Your task to perform on an android device: Go to privacy settings Image 0: 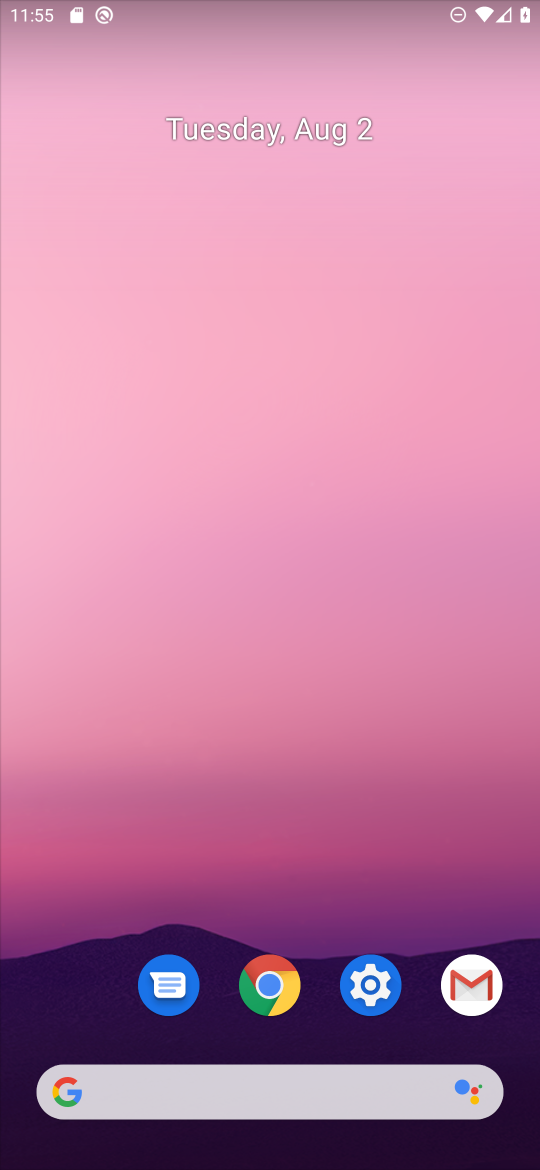
Step 0: click (353, 987)
Your task to perform on an android device: Go to privacy settings Image 1: 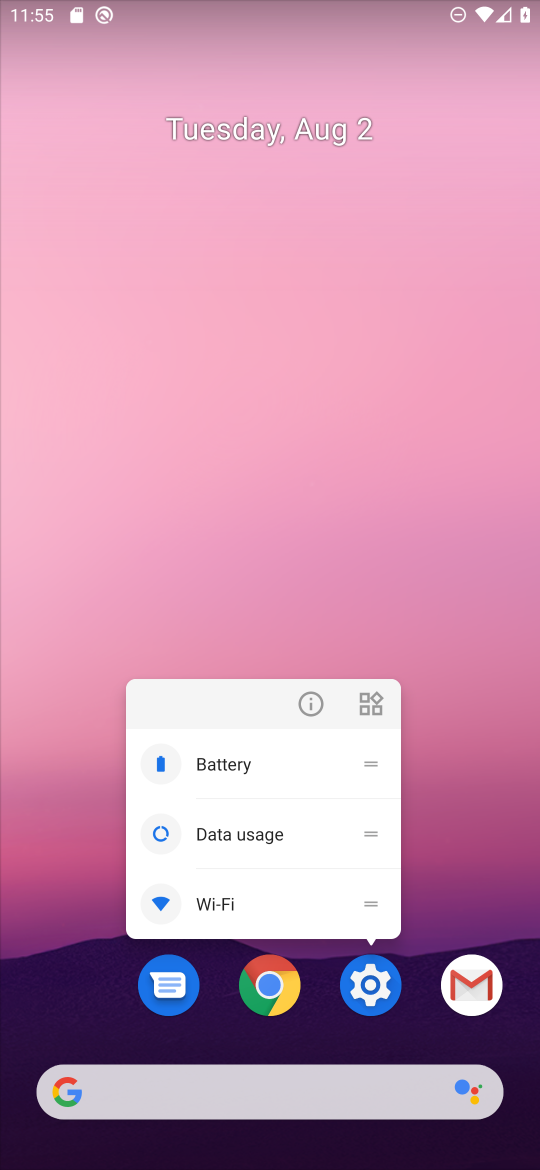
Step 1: click (365, 1008)
Your task to perform on an android device: Go to privacy settings Image 2: 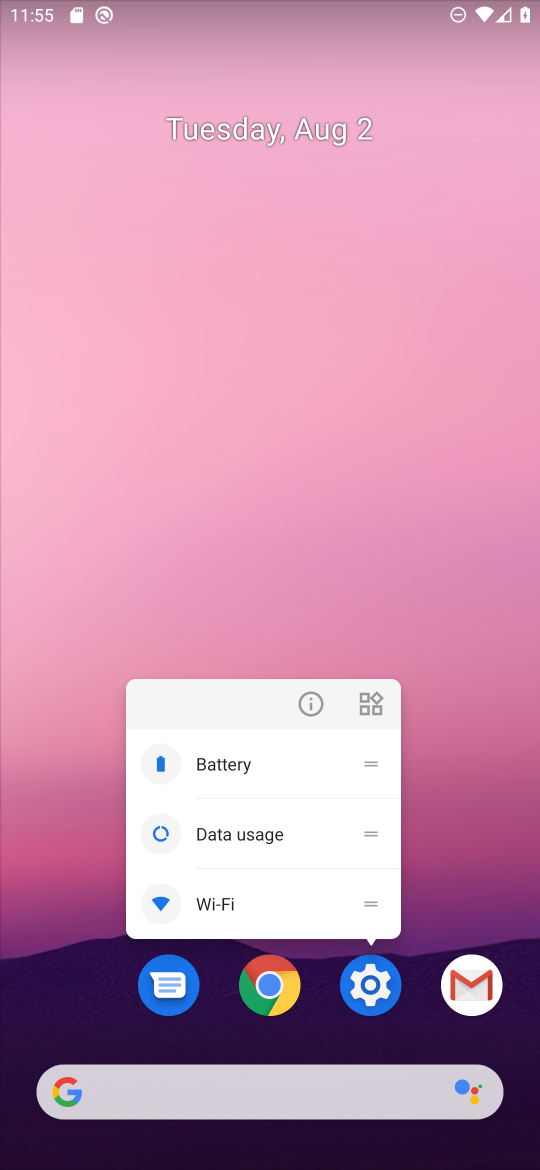
Step 2: click (369, 1007)
Your task to perform on an android device: Go to privacy settings Image 3: 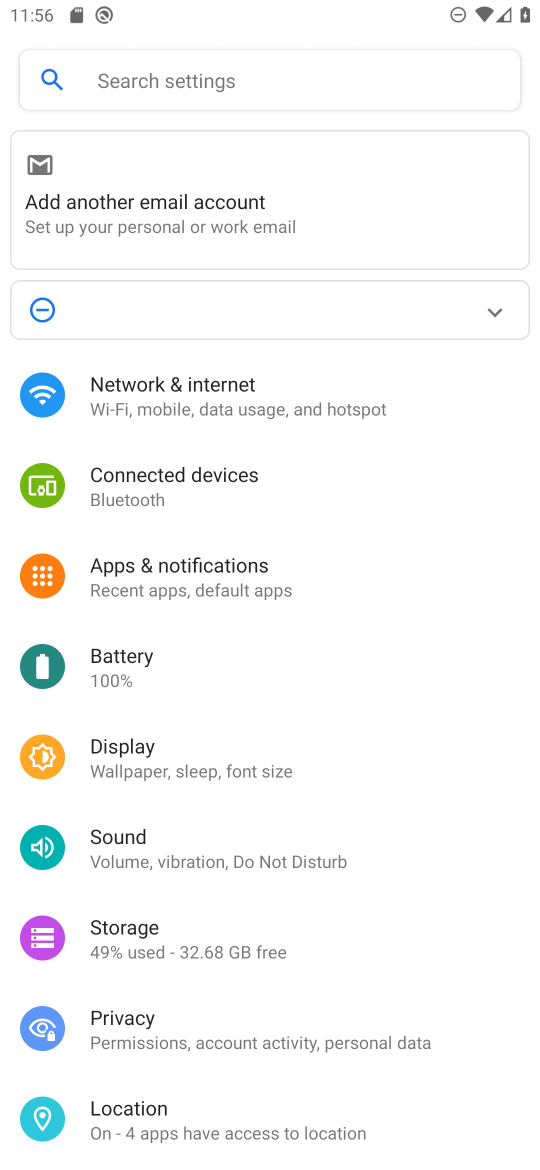
Step 3: click (154, 1019)
Your task to perform on an android device: Go to privacy settings Image 4: 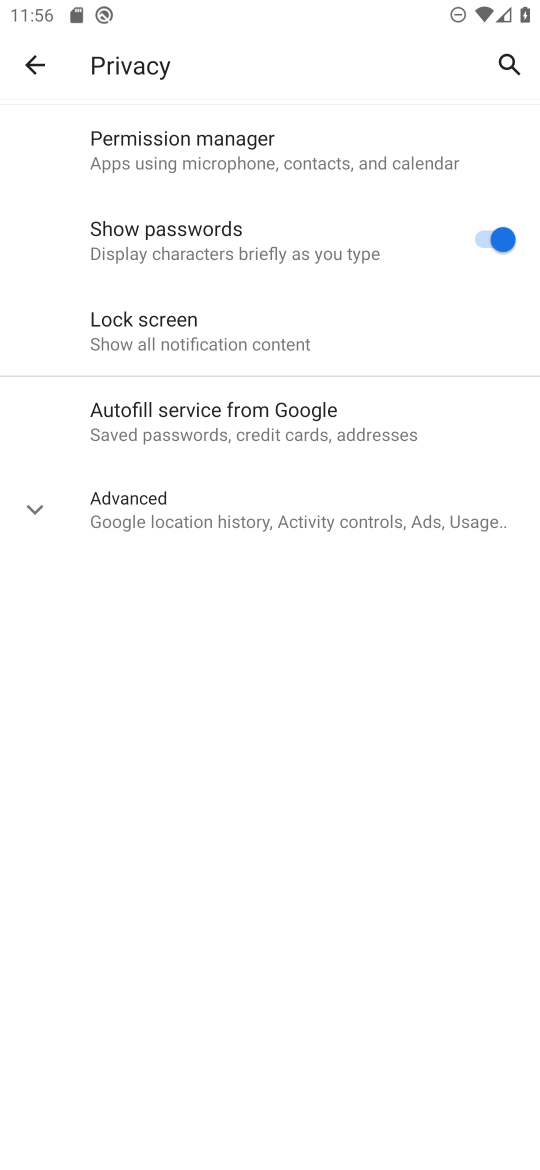
Step 4: task complete